Your task to perform on an android device: What's the weather going to be tomorrow? Image 0: 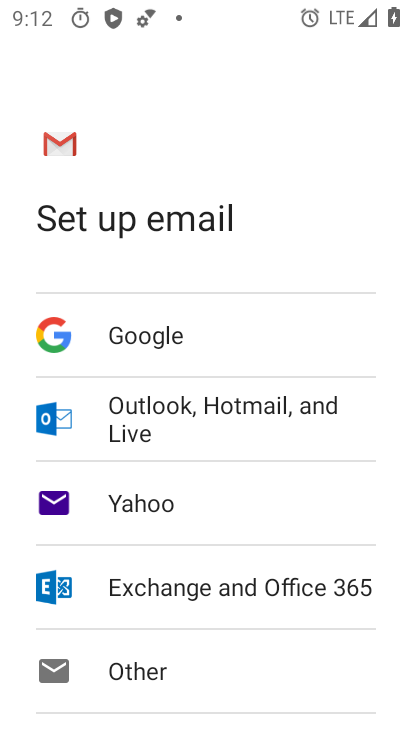
Step 0: press home button
Your task to perform on an android device: What's the weather going to be tomorrow? Image 1: 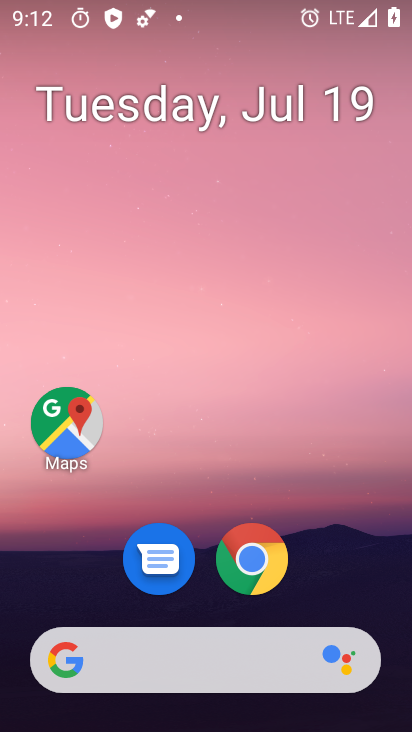
Step 1: click (270, 553)
Your task to perform on an android device: What's the weather going to be tomorrow? Image 2: 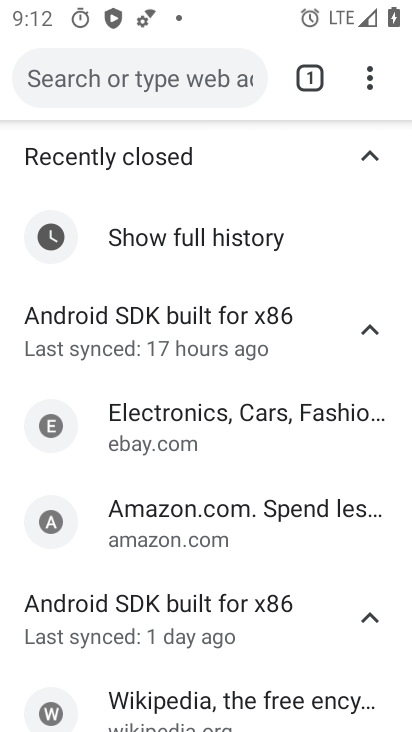
Step 2: click (192, 70)
Your task to perform on an android device: What's the weather going to be tomorrow? Image 3: 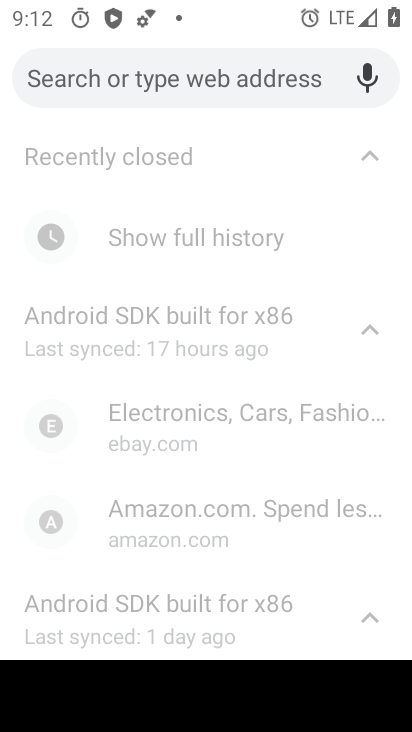
Step 3: type "What's the weather going to be tomorrow?"
Your task to perform on an android device: What's the weather going to be tomorrow? Image 4: 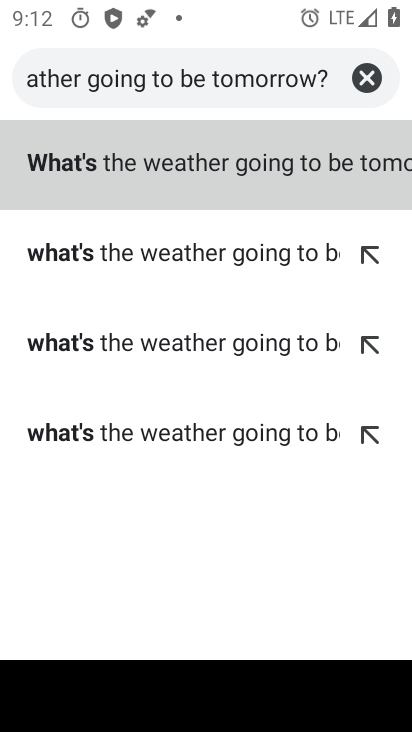
Step 4: click (244, 173)
Your task to perform on an android device: What's the weather going to be tomorrow? Image 5: 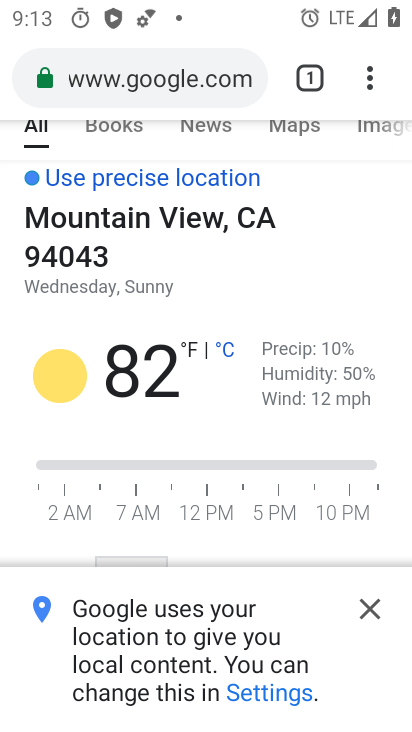
Step 5: click (368, 609)
Your task to perform on an android device: What's the weather going to be tomorrow? Image 6: 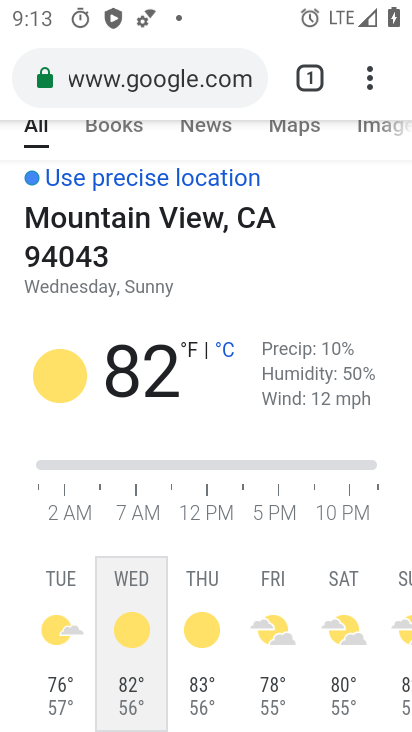
Step 6: task complete